Your task to perform on an android device: Open calendar and show me the second week of next month Image 0: 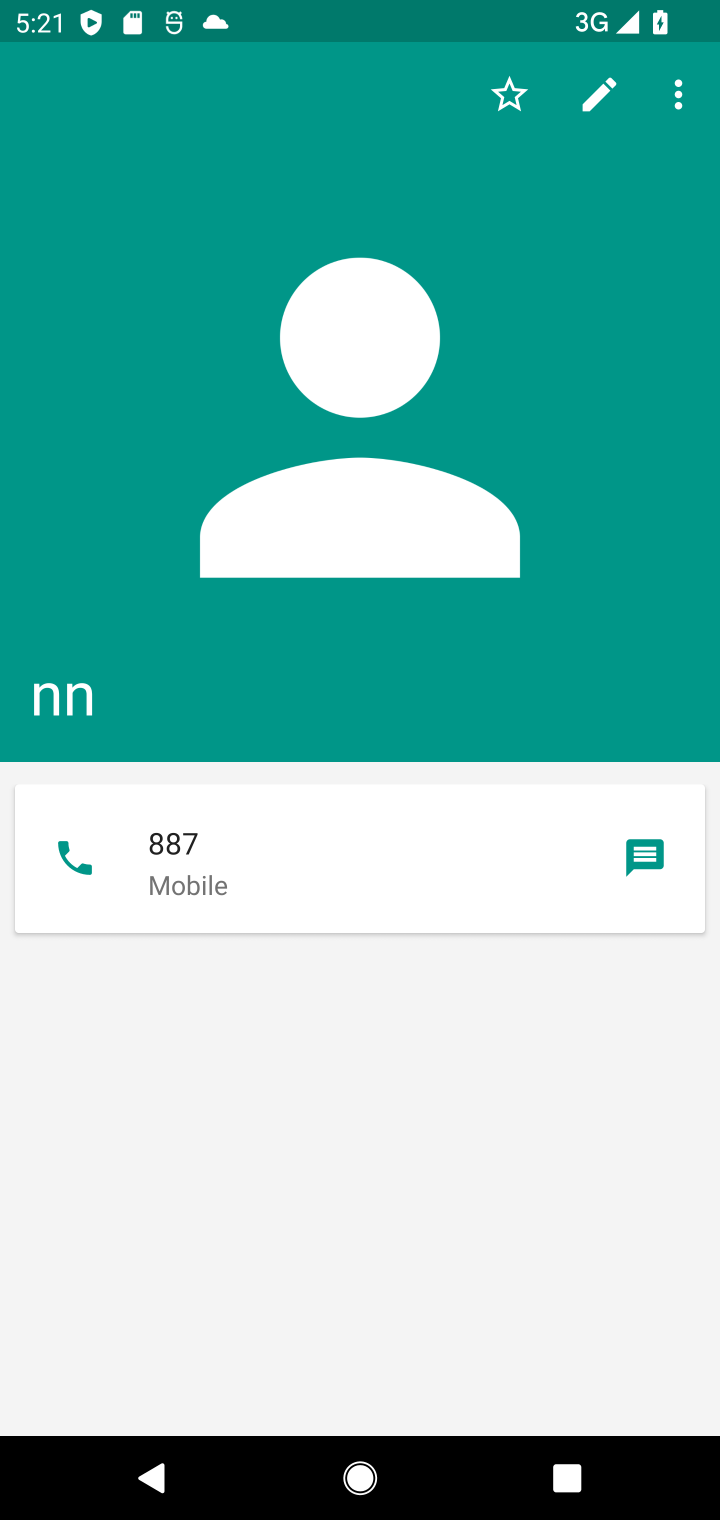
Step 0: press home button
Your task to perform on an android device: Open calendar and show me the second week of next month Image 1: 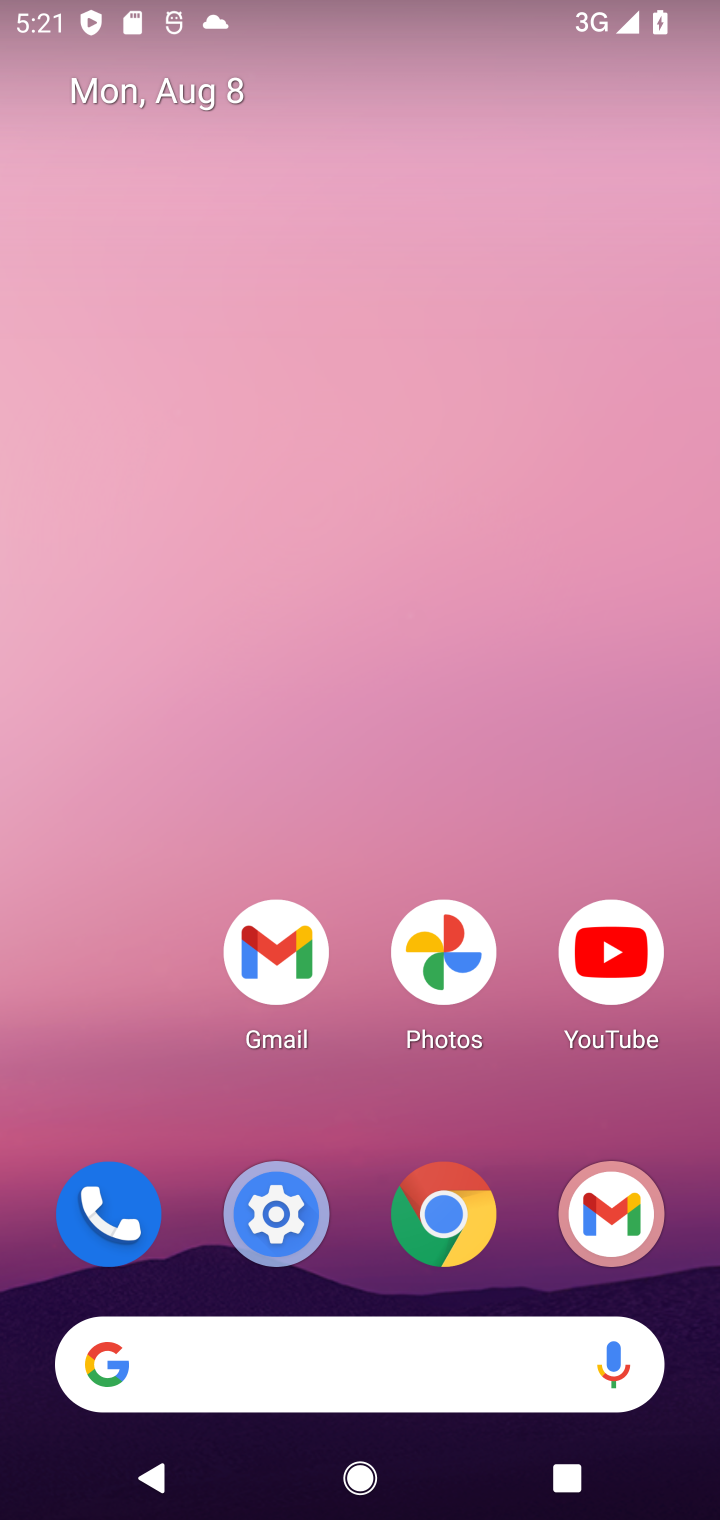
Step 1: drag from (365, 1077) to (365, 177)
Your task to perform on an android device: Open calendar and show me the second week of next month Image 2: 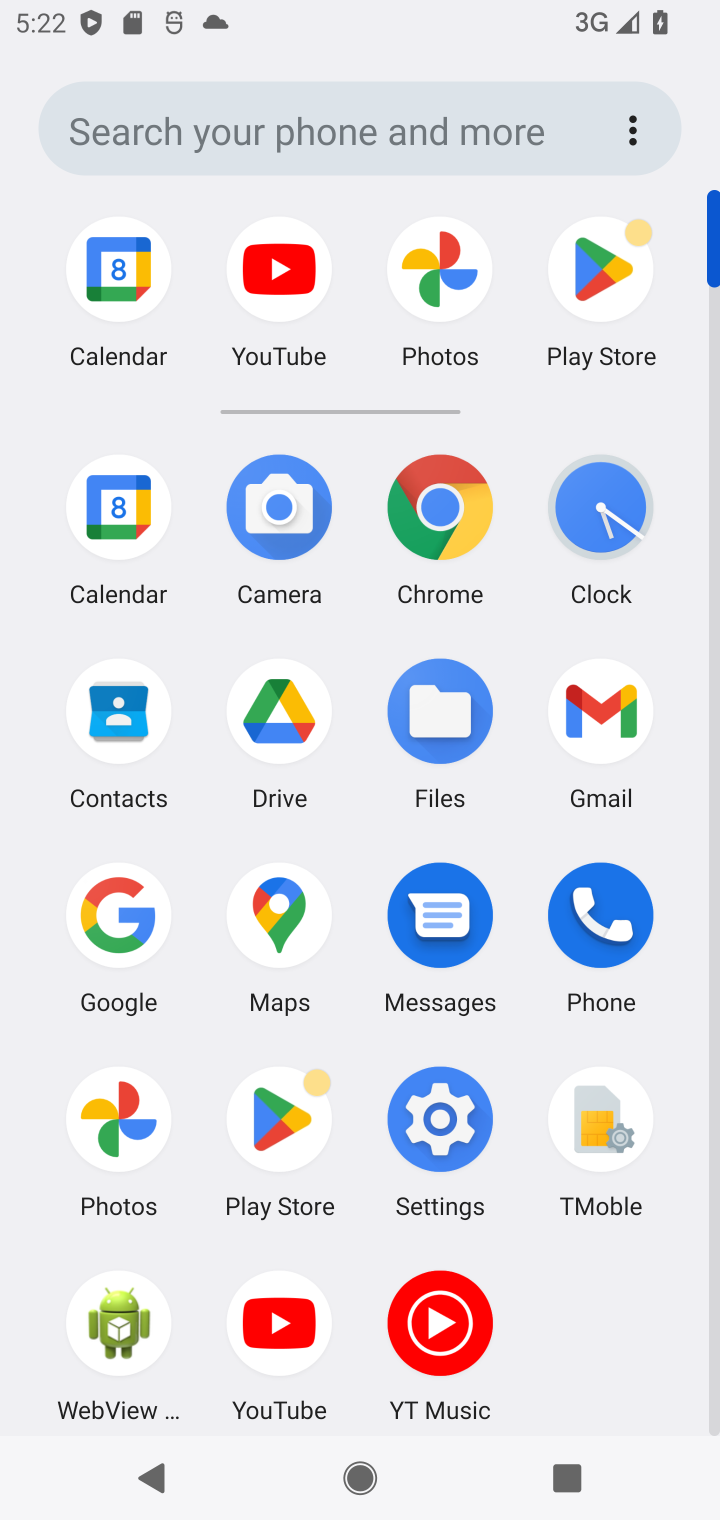
Step 2: click (111, 517)
Your task to perform on an android device: Open calendar and show me the second week of next month Image 3: 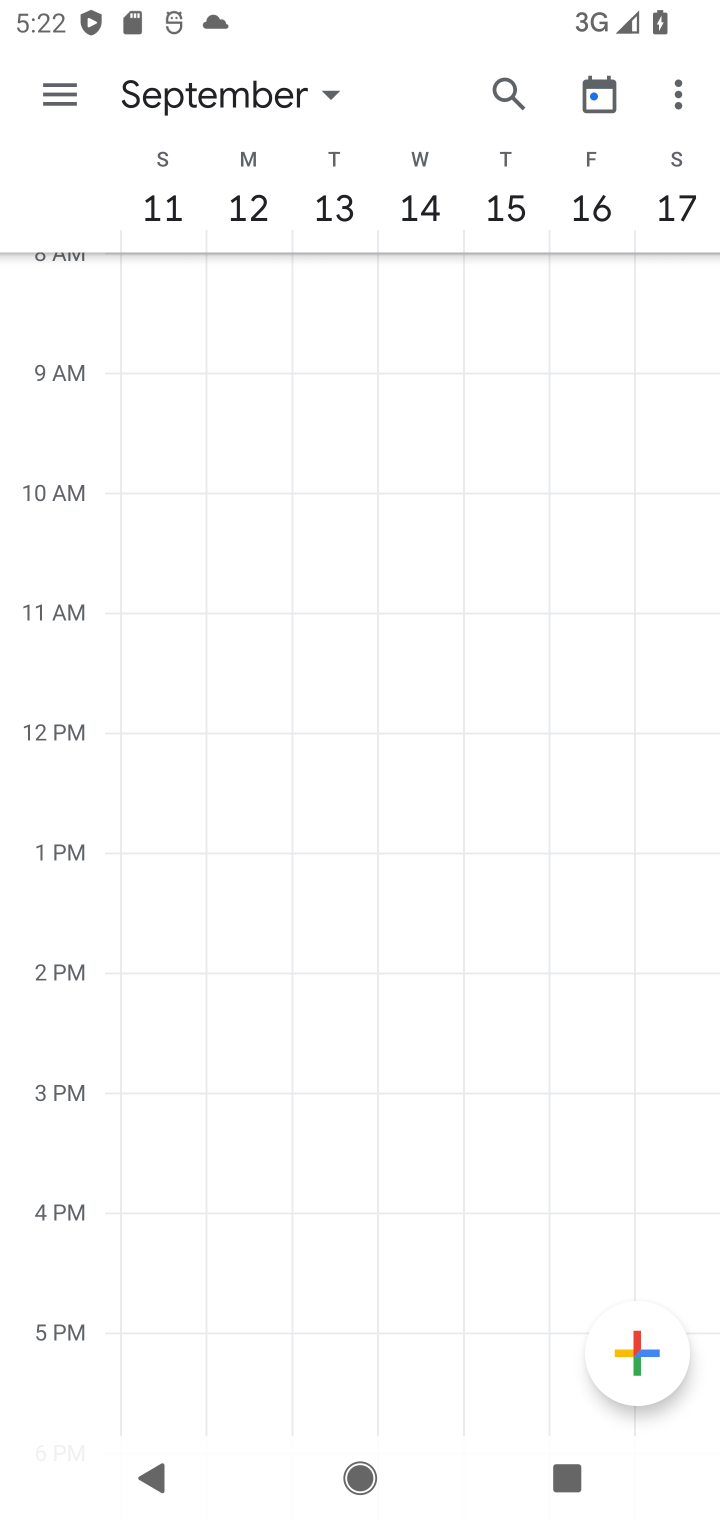
Step 3: task complete